Your task to perform on an android device: toggle airplane mode Image 0: 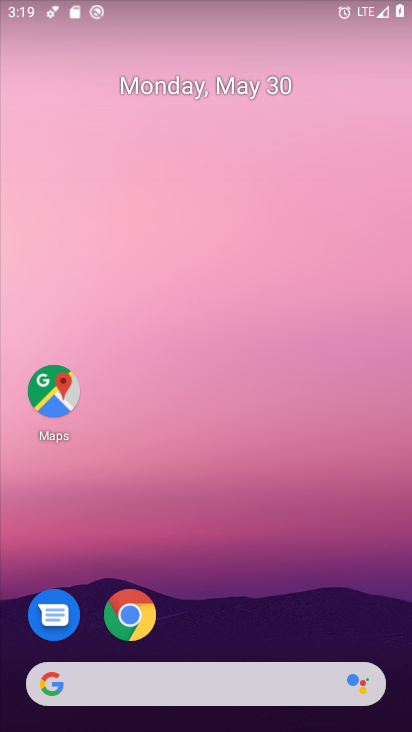
Step 0: drag from (252, 478) to (319, 1)
Your task to perform on an android device: toggle airplane mode Image 1: 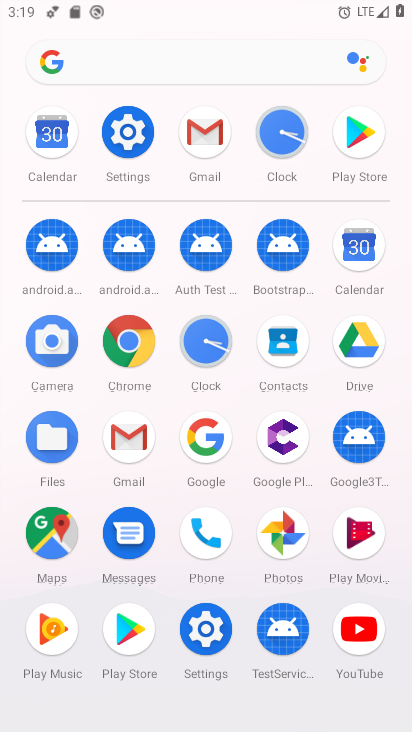
Step 1: click (120, 137)
Your task to perform on an android device: toggle airplane mode Image 2: 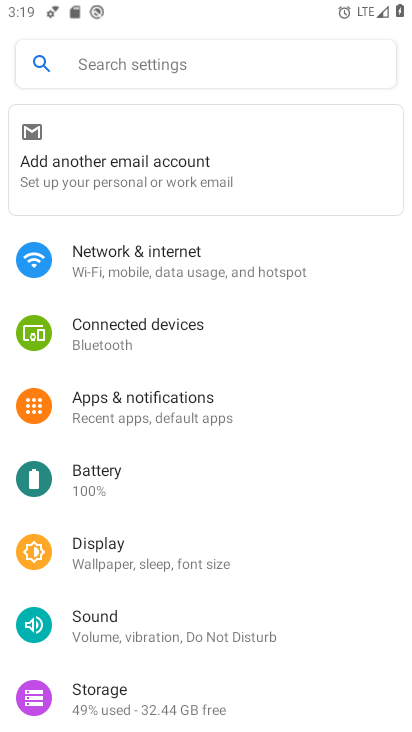
Step 2: click (229, 267)
Your task to perform on an android device: toggle airplane mode Image 3: 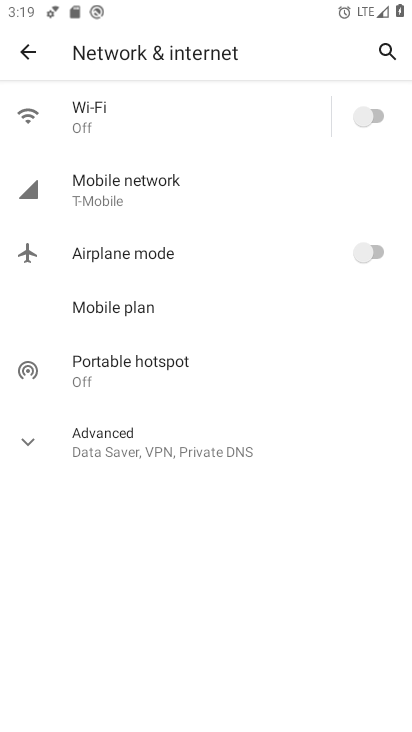
Step 3: click (372, 245)
Your task to perform on an android device: toggle airplane mode Image 4: 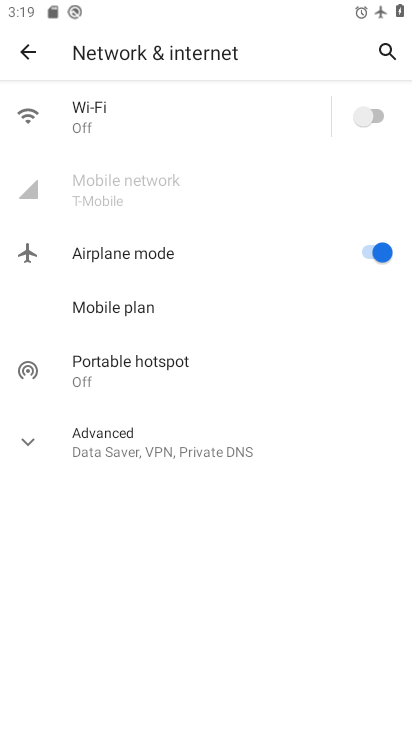
Step 4: task complete